Your task to perform on an android device: clear history in the chrome app Image 0: 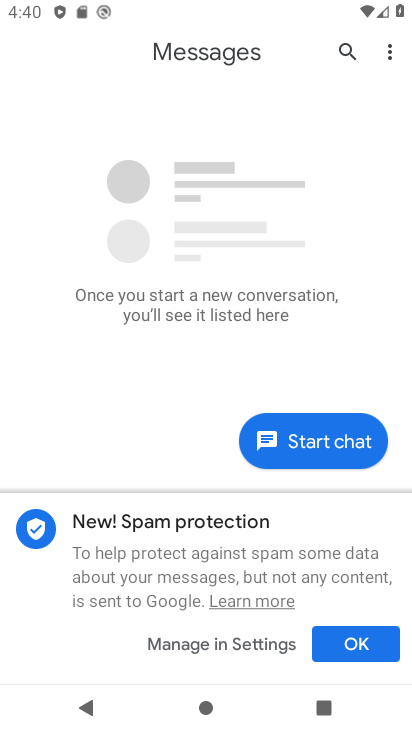
Step 0: press home button
Your task to perform on an android device: clear history in the chrome app Image 1: 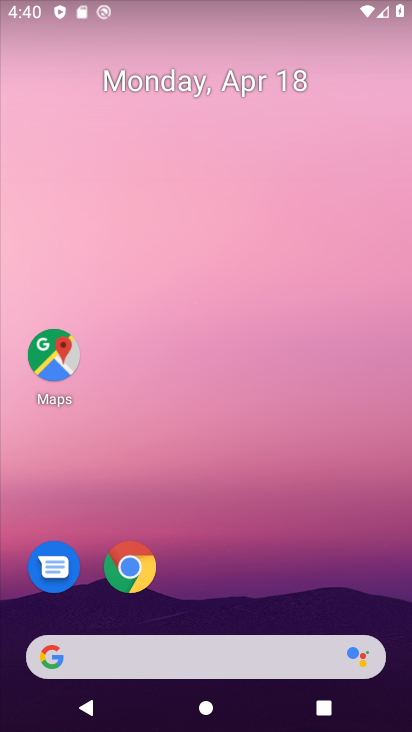
Step 1: click (119, 570)
Your task to perform on an android device: clear history in the chrome app Image 2: 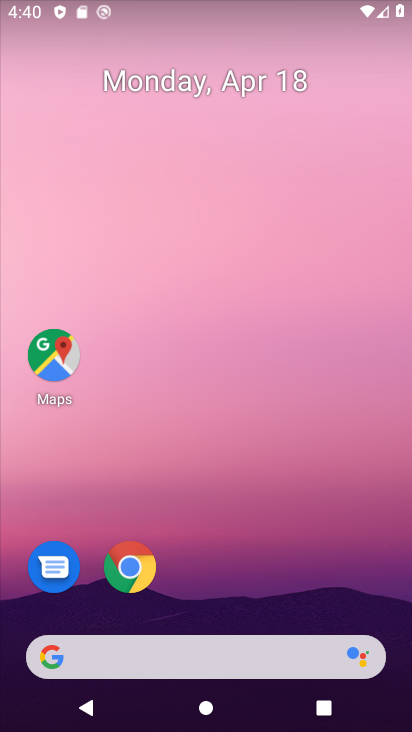
Step 2: click (119, 570)
Your task to perform on an android device: clear history in the chrome app Image 3: 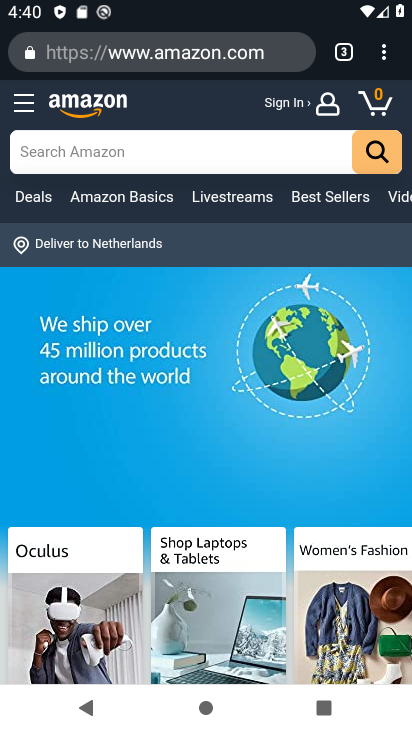
Step 3: click (377, 47)
Your task to perform on an android device: clear history in the chrome app Image 4: 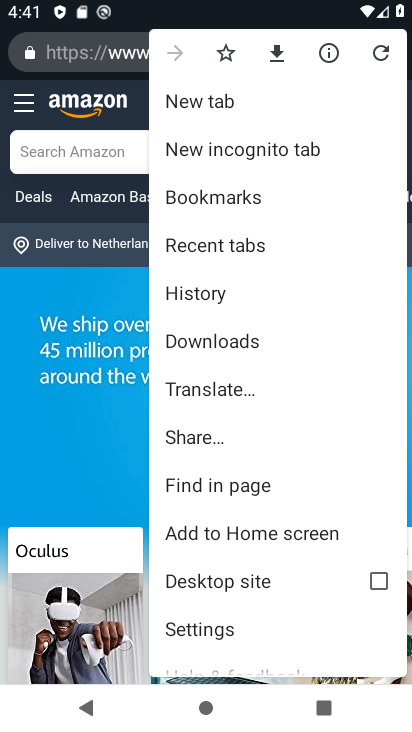
Step 4: click (221, 283)
Your task to perform on an android device: clear history in the chrome app Image 5: 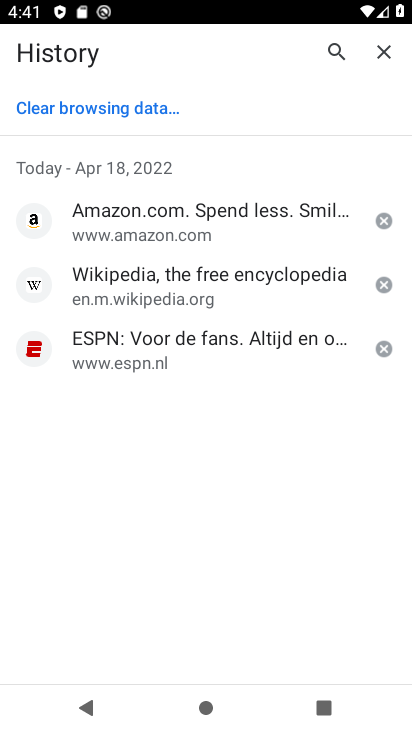
Step 5: click (117, 104)
Your task to perform on an android device: clear history in the chrome app Image 6: 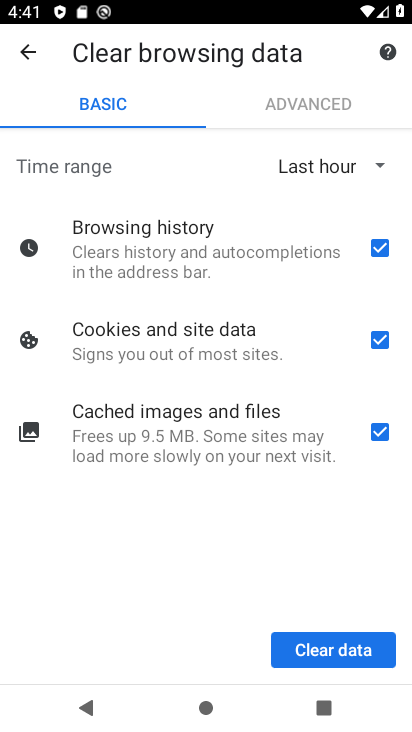
Step 6: click (312, 664)
Your task to perform on an android device: clear history in the chrome app Image 7: 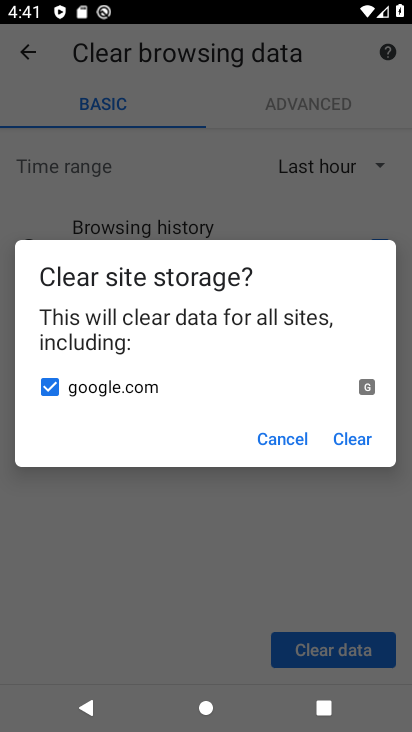
Step 7: click (352, 431)
Your task to perform on an android device: clear history in the chrome app Image 8: 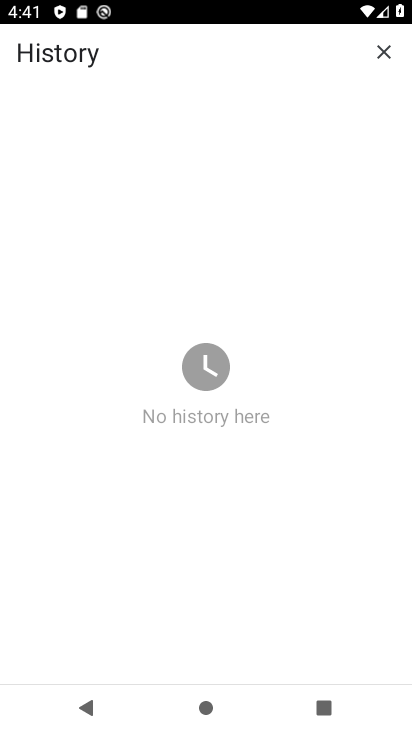
Step 8: task complete